Your task to perform on an android device: Open Maps and search for coffee Image 0: 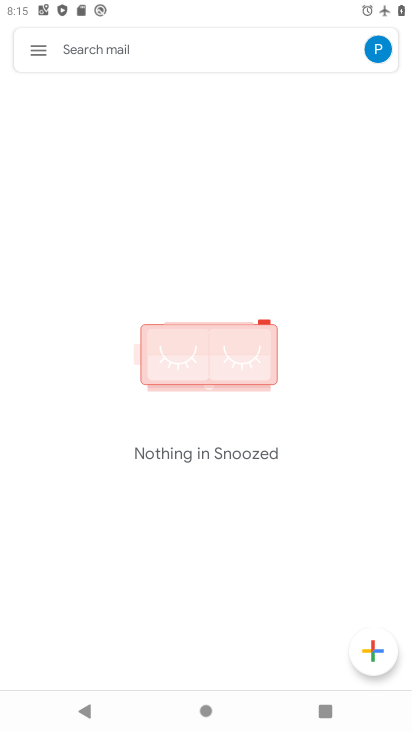
Step 0: press home button
Your task to perform on an android device: Open Maps and search for coffee Image 1: 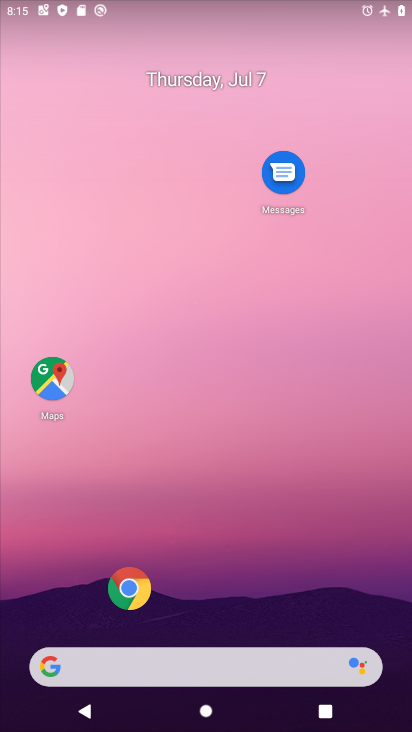
Step 1: click (67, 373)
Your task to perform on an android device: Open Maps and search for coffee Image 2: 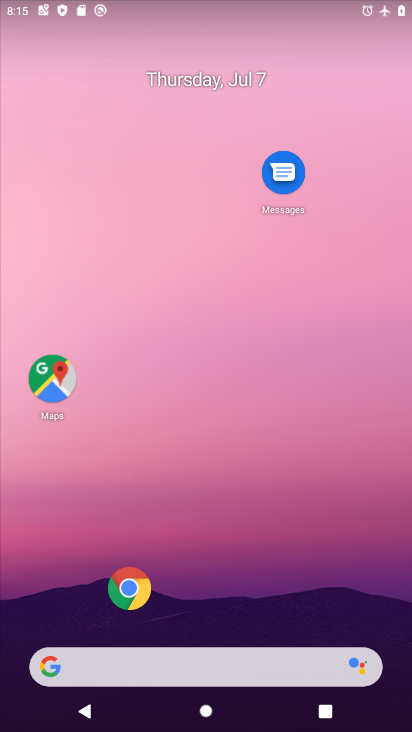
Step 2: click (60, 377)
Your task to perform on an android device: Open Maps and search for coffee Image 3: 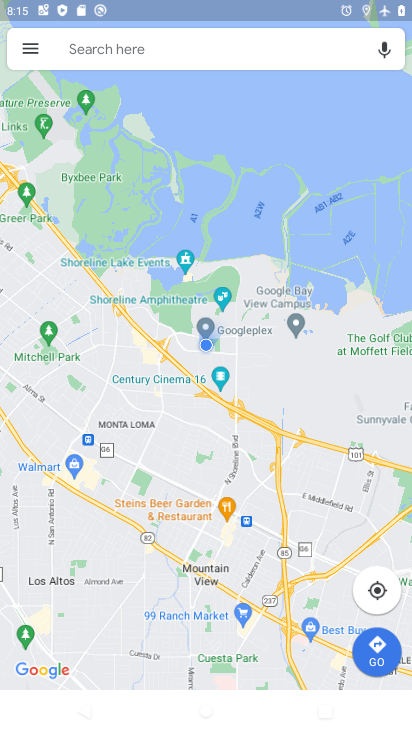
Step 3: click (146, 41)
Your task to perform on an android device: Open Maps and search for coffee Image 4: 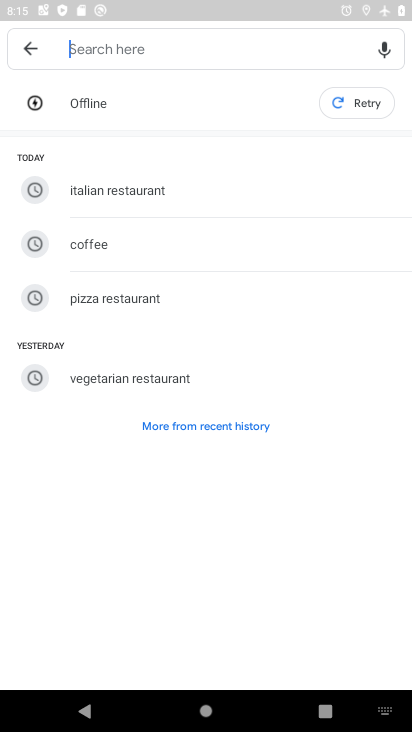
Step 4: click (88, 241)
Your task to perform on an android device: Open Maps and search for coffee Image 5: 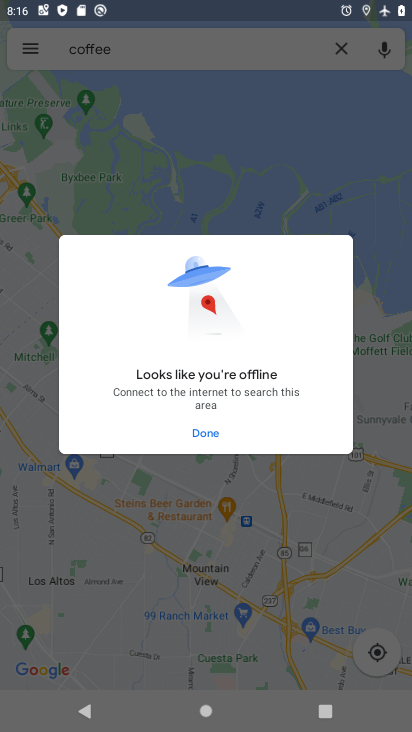
Step 5: drag from (294, 10) to (267, 524)
Your task to perform on an android device: Open Maps and search for coffee Image 6: 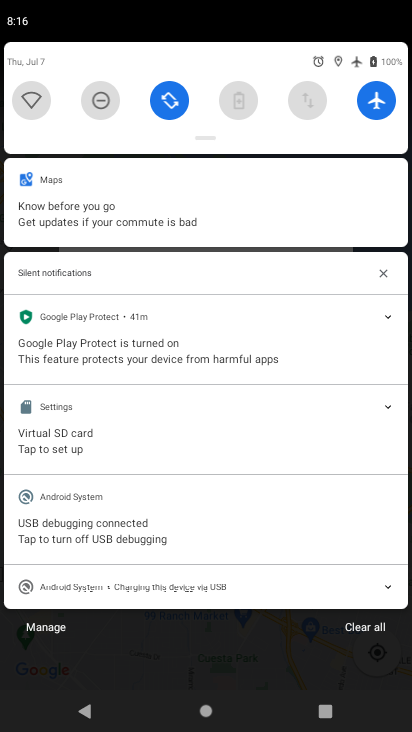
Step 6: click (371, 99)
Your task to perform on an android device: Open Maps and search for coffee Image 7: 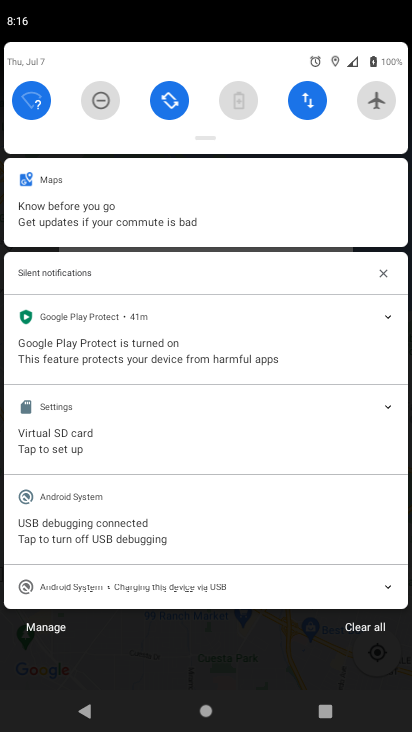
Step 7: drag from (153, 641) to (260, 104)
Your task to perform on an android device: Open Maps and search for coffee Image 8: 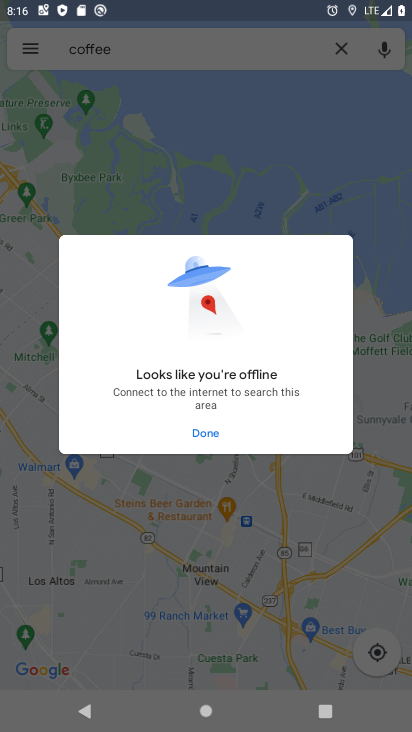
Step 8: click (204, 429)
Your task to perform on an android device: Open Maps and search for coffee Image 9: 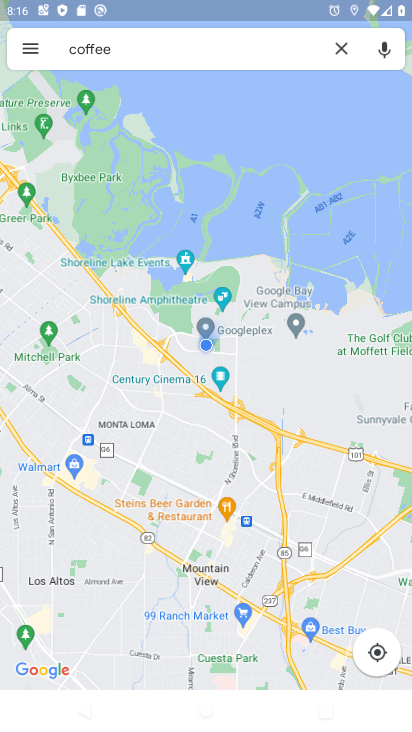
Step 9: task complete